Your task to perform on an android device: Open calendar and show me the second week of next month Image 0: 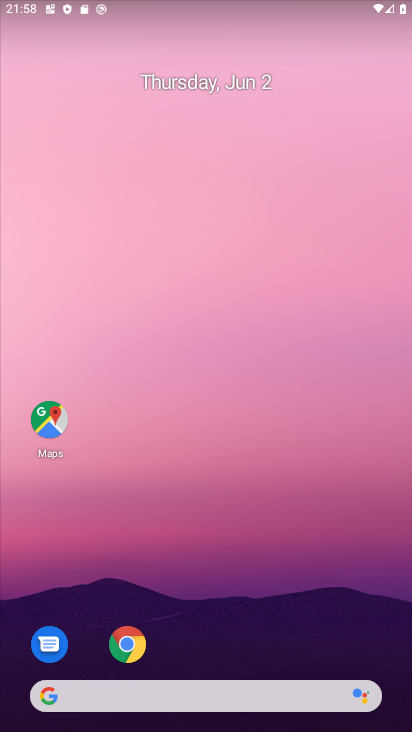
Step 0: drag from (232, 638) to (229, 194)
Your task to perform on an android device: Open calendar and show me the second week of next month Image 1: 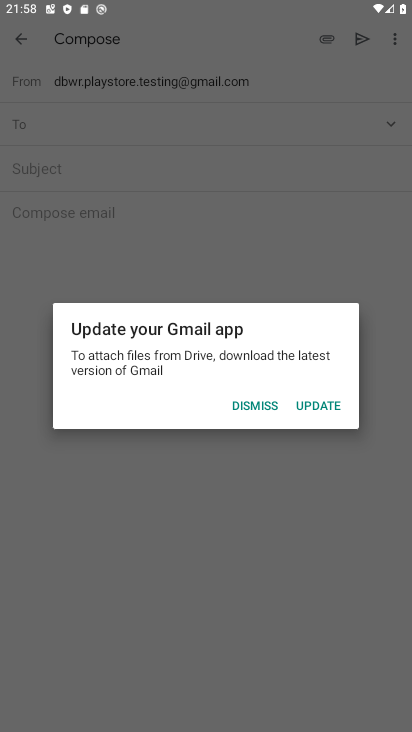
Step 1: press home button
Your task to perform on an android device: Open calendar and show me the second week of next month Image 2: 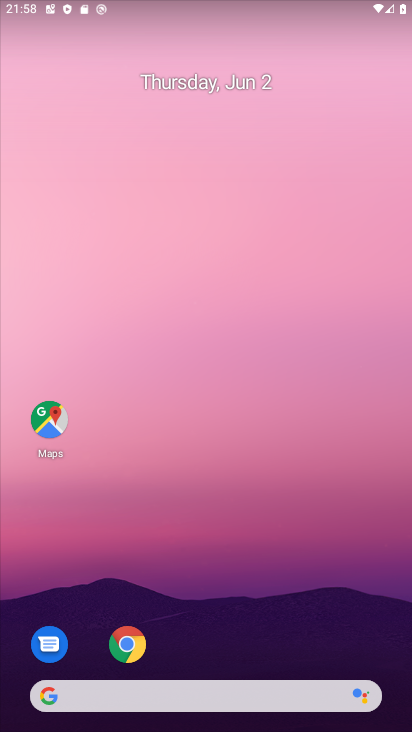
Step 2: drag from (206, 661) to (196, 204)
Your task to perform on an android device: Open calendar and show me the second week of next month Image 3: 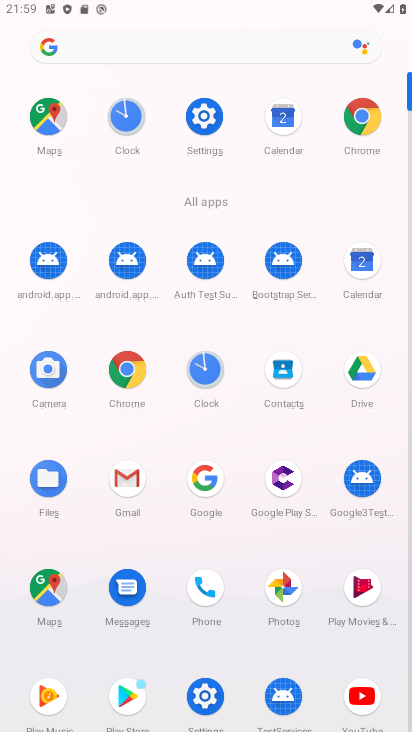
Step 3: click (355, 286)
Your task to perform on an android device: Open calendar and show me the second week of next month Image 4: 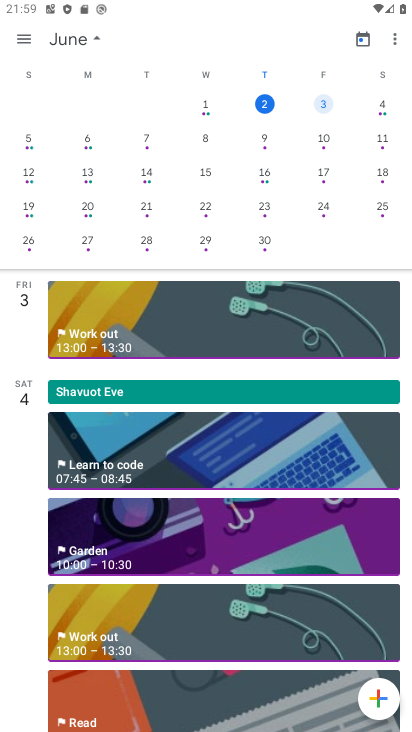
Step 4: drag from (383, 183) to (18, 177)
Your task to perform on an android device: Open calendar and show me the second week of next month Image 5: 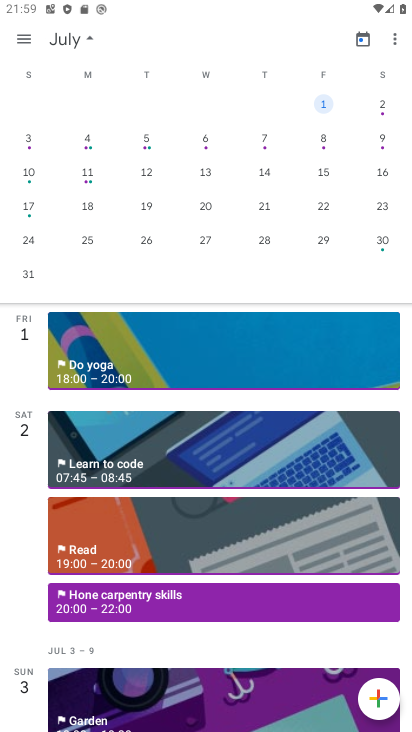
Step 5: click (29, 165)
Your task to perform on an android device: Open calendar and show me the second week of next month Image 6: 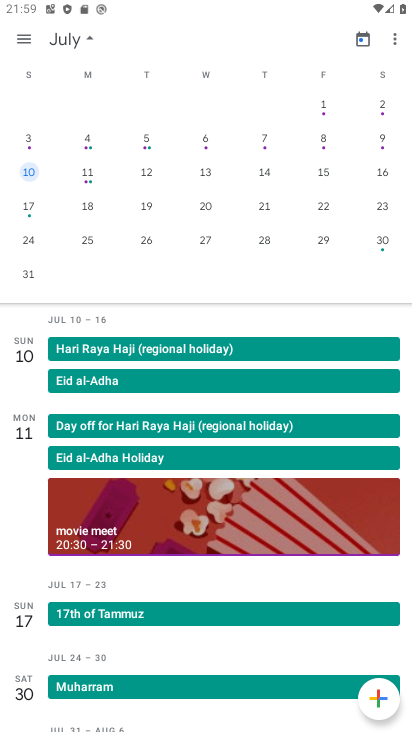
Step 6: click (23, 44)
Your task to perform on an android device: Open calendar and show me the second week of next month Image 7: 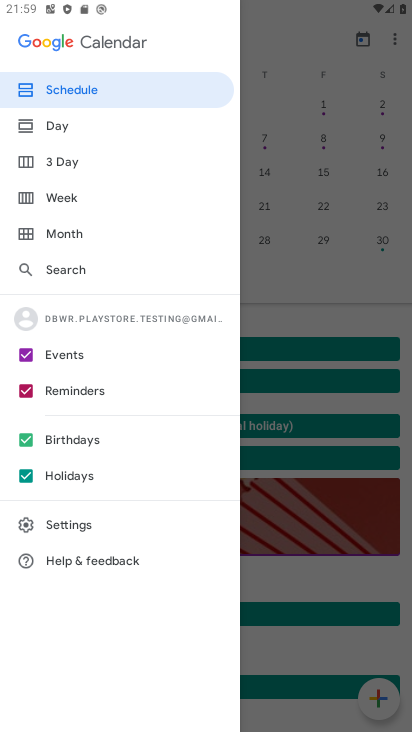
Step 7: click (73, 194)
Your task to perform on an android device: Open calendar and show me the second week of next month Image 8: 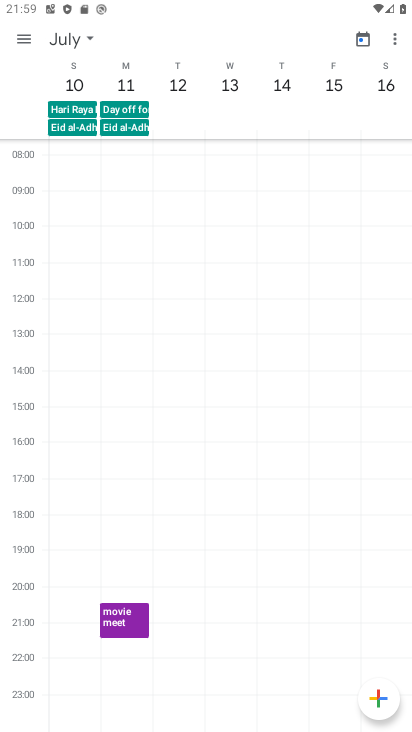
Step 8: drag from (238, 453) to (240, 130)
Your task to perform on an android device: Open calendar and show me the second week of next month Image 9: 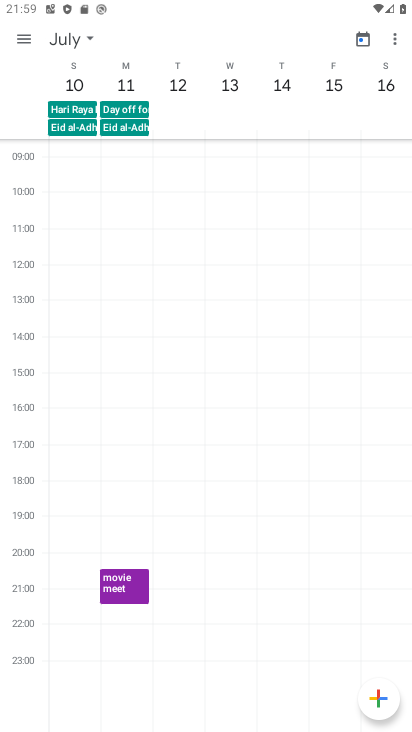
Step 9: drag from (261, 475) to (226, 183)
Your task to perform on an android device: Open calendar and show me the second week of next month Image 10: 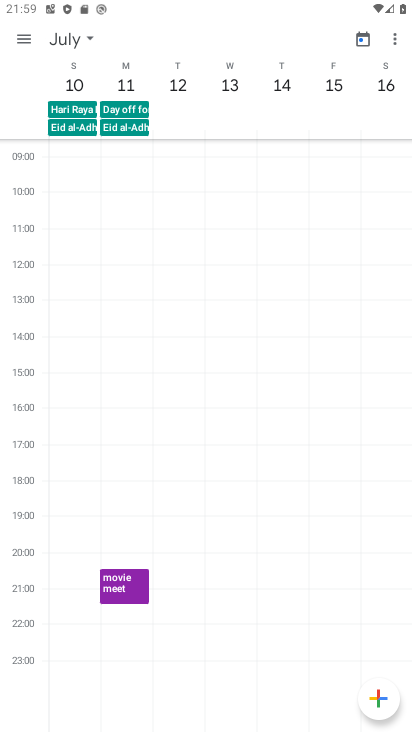
Step 10: drag from (231, 468) to (262, 171)
Your task to perform on an android device: Open calendar and show me the second week of next month Image 11: 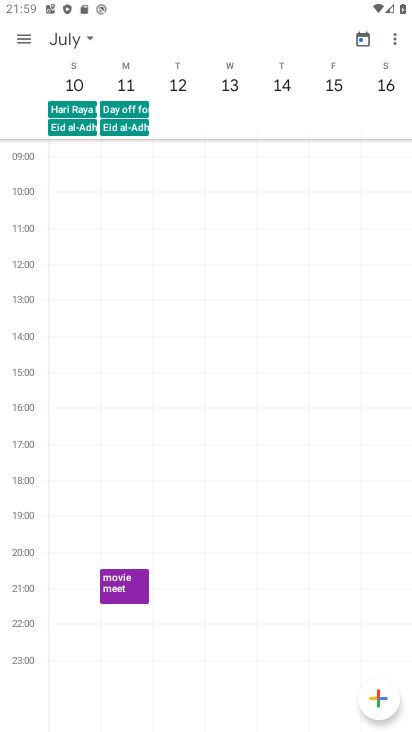
Step 11: click (75, 38)
Your task to perform on an android device: Open calendar and show me the second week of next month Image 12: 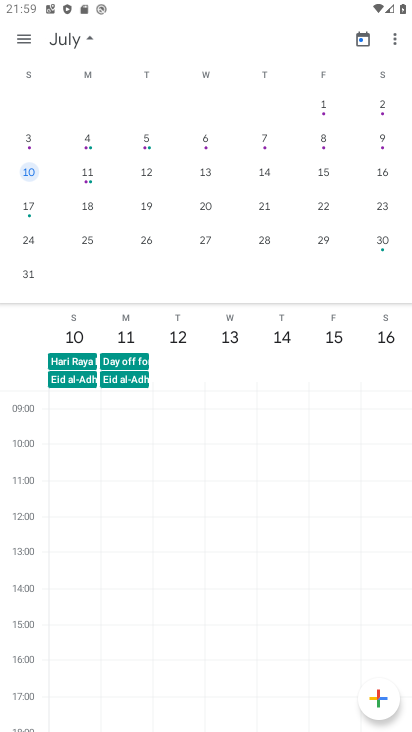
Step 12: task complete